Your task to perform on an android device: Open Chrome and go to settings Image 0: 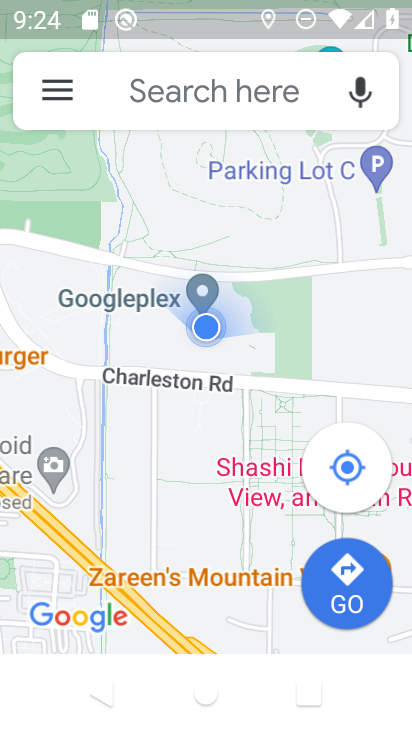
Step 0: press home button
Your task to perform on an android device: Open Chrome and go to settings Image 1: 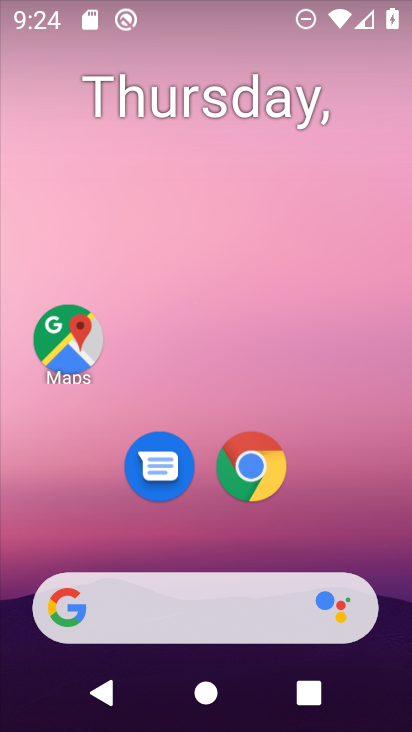
Step 1: drag from (277, 653) to (318, 69)
Your task to perform on an android device: Open Chrome and go to settings Image 2: 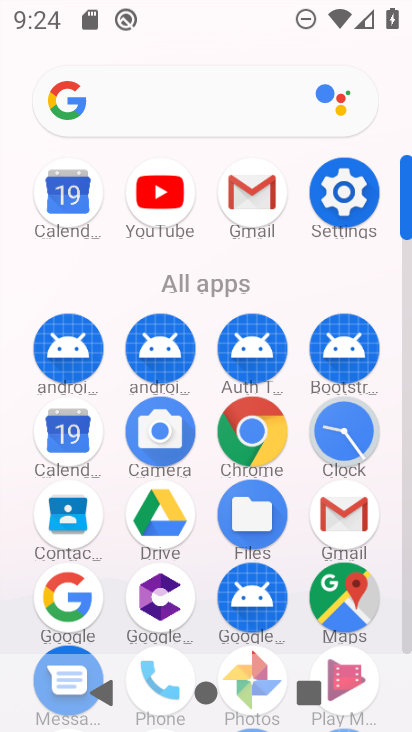
Step 2: click (245, 416)
Your task to perform on an android device: Open Chrome and go to settings Image 3: 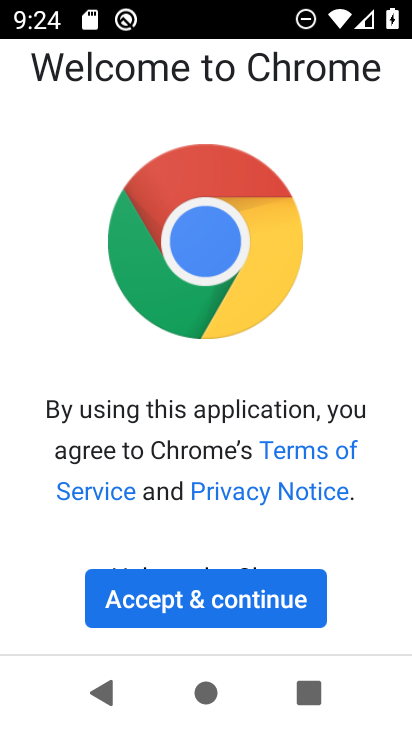
Step 3: click (288, 583)
Your task to perform on an android device: Open Chrome and go to settings Image 4: 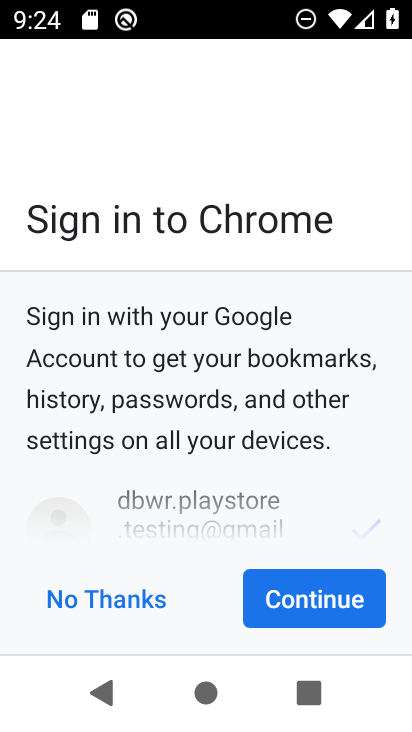
Step 4: click (175, 603)
Your task to perform on an android device: Open Chrome and go to settings Image 5: 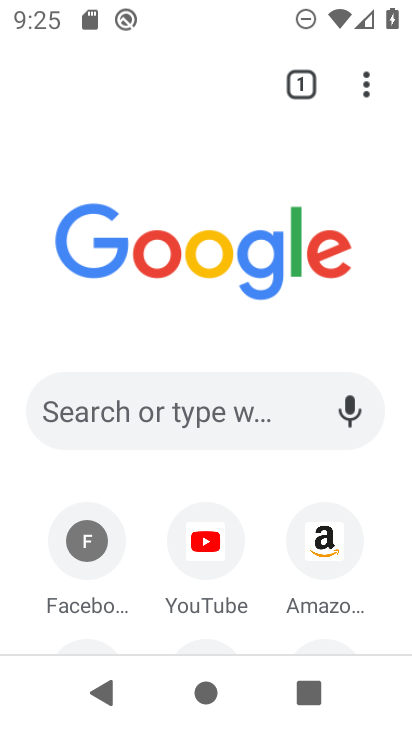
Step 5: task complete